Your task to perform on an android device: turn on translation in the chrome app Image 0: 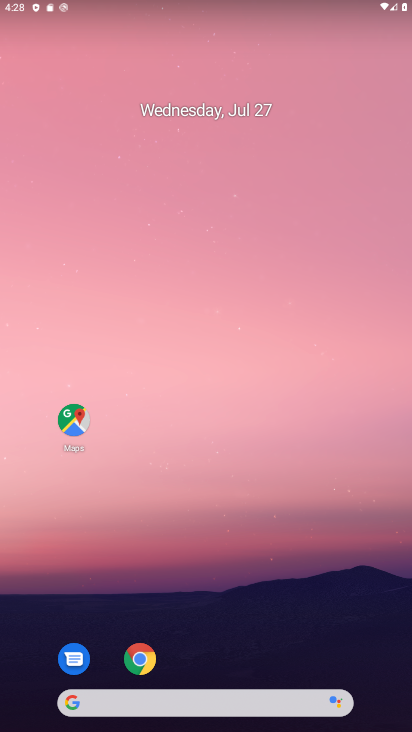
Step 0: press home button
Your task to perform on an android device: turn on translation in the chrome app Image 1: 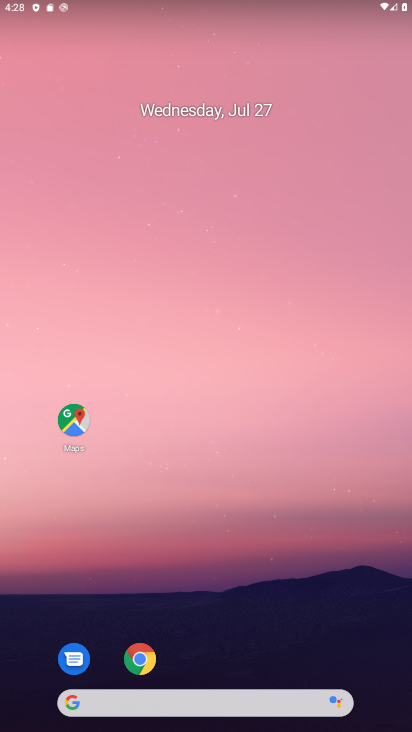
Step 1: drag from (138, 665) to (191, 134)
Your task to perform on an android device: turn on translation in the chrome app Image 2: 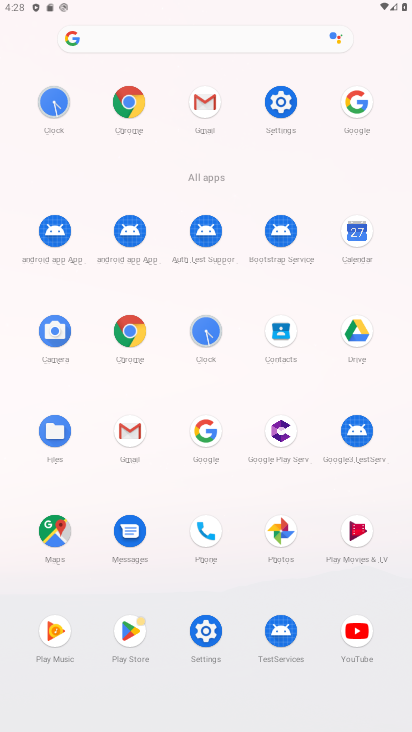
Step 2: click (151, 315)
Your task to perform on an android device: turn on translation in the chrome app Image 3: 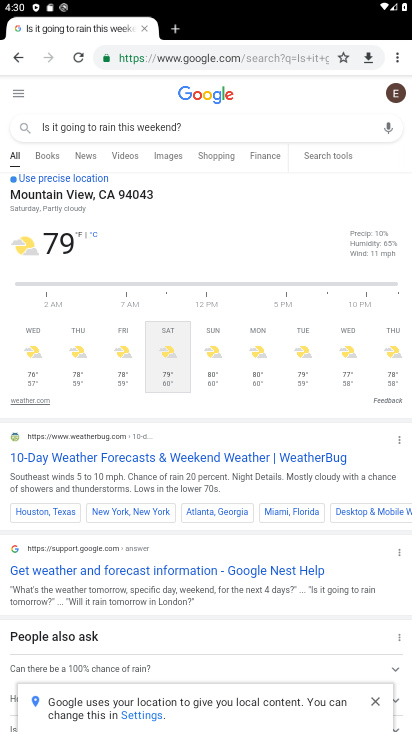
Step 3: drag from (402, 48) to (263, 361)
Your task to perform on an android device: turn on translation in the chrome app Image 4: 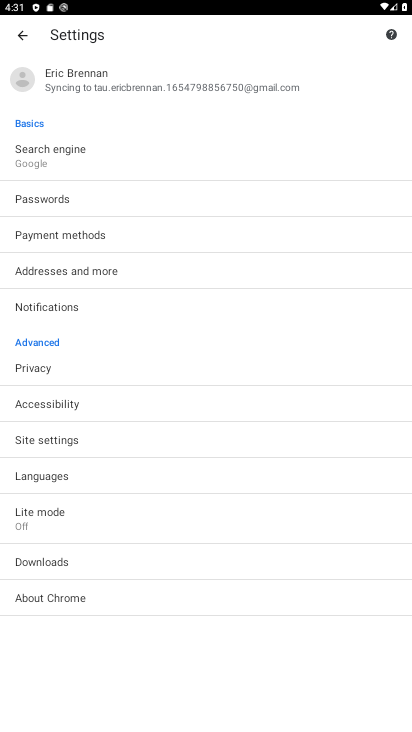
Step 4: click (135, 482)
Your task to perform on an android device: turn on translation in the chrome app Image 5: 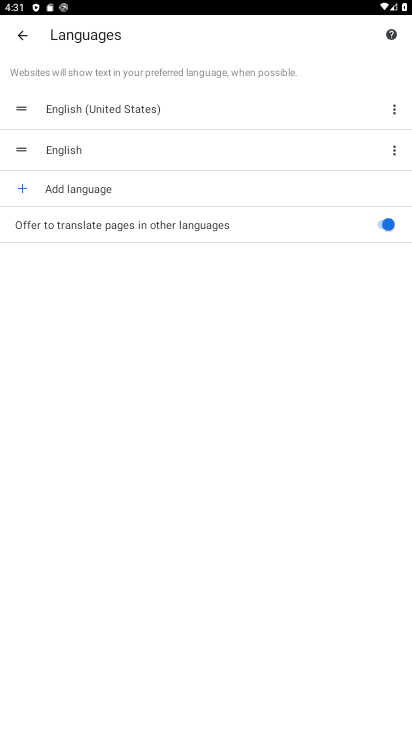
Step 5: task complete